Your task to perform on an android device: Go to location settings Image 0: 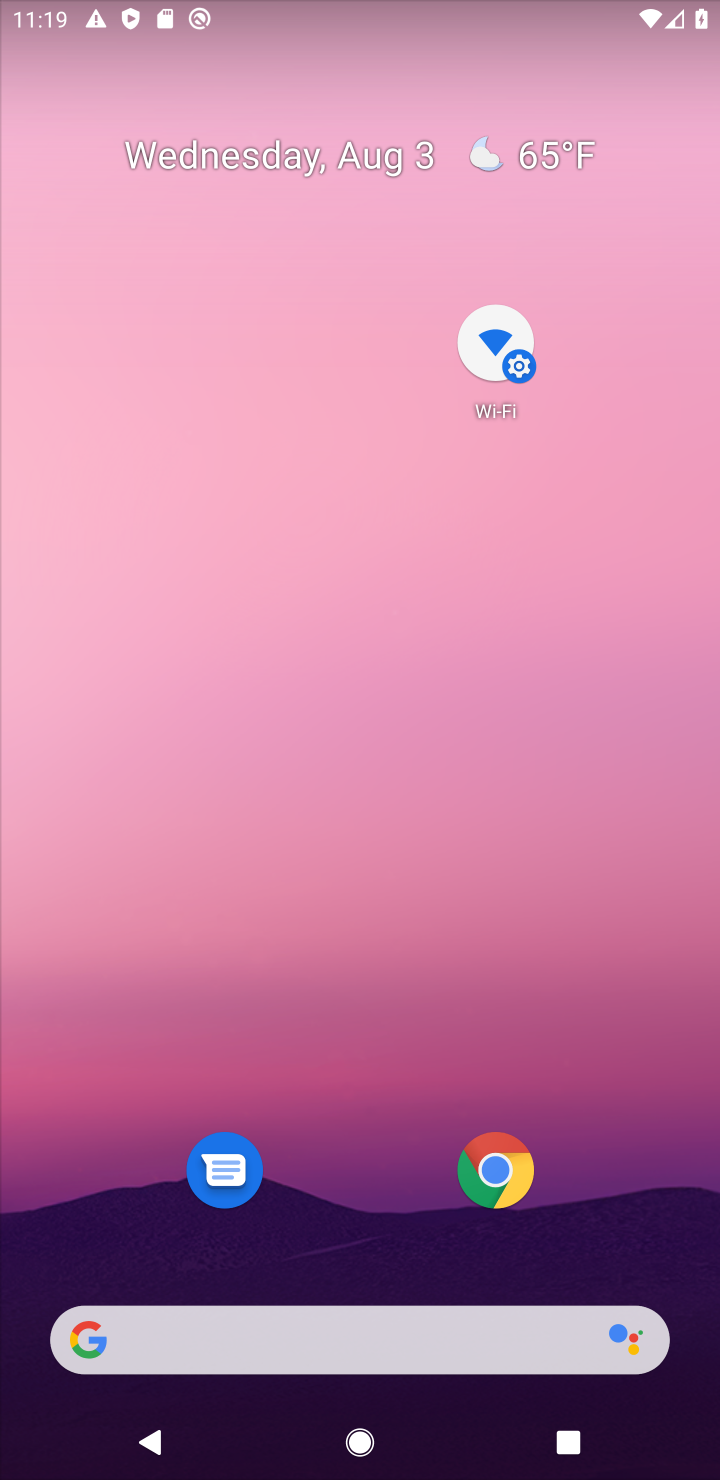
Step 0: click (483, 638)
Your task to perform on an android device: Go to location settings Image 1: 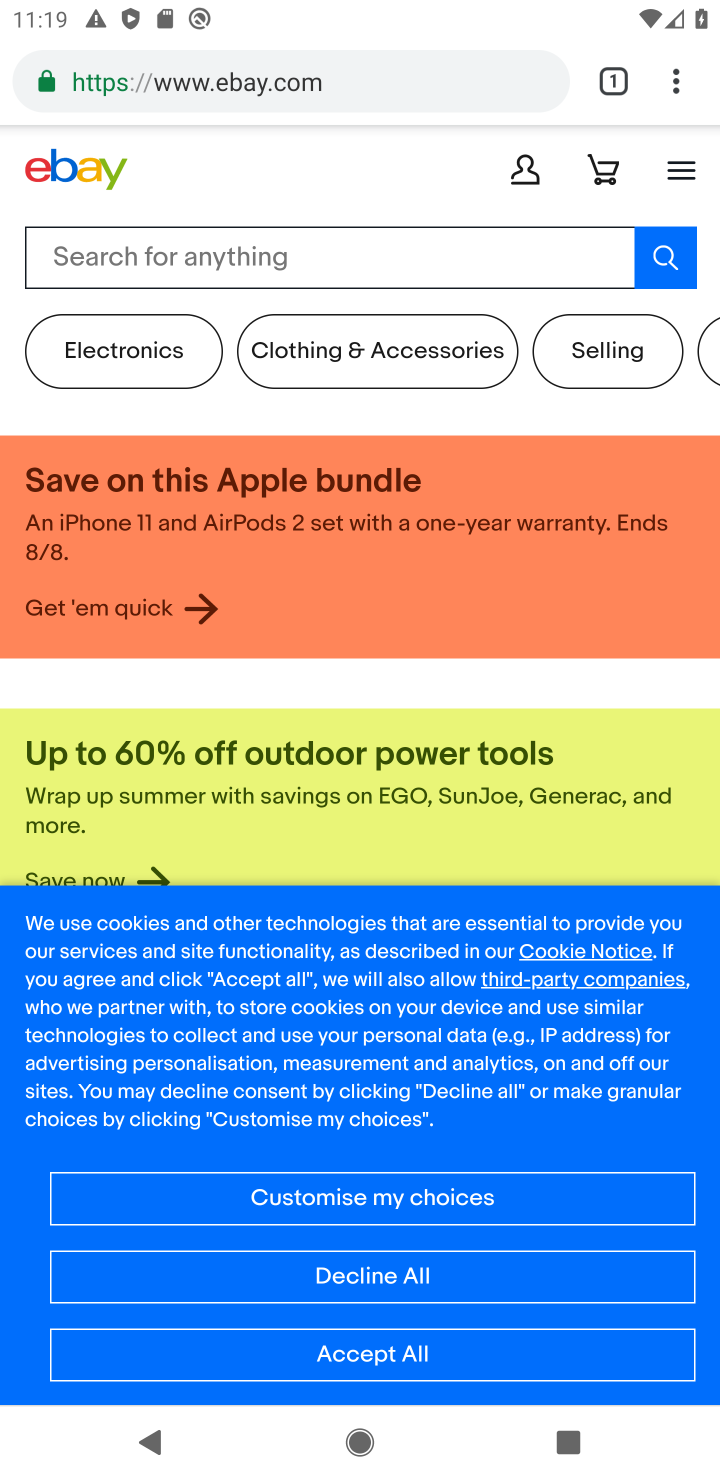
Step 1: drag from (674, 88) to (32, 405)
Your task to perform on an android device: Go to location settings Image 2: 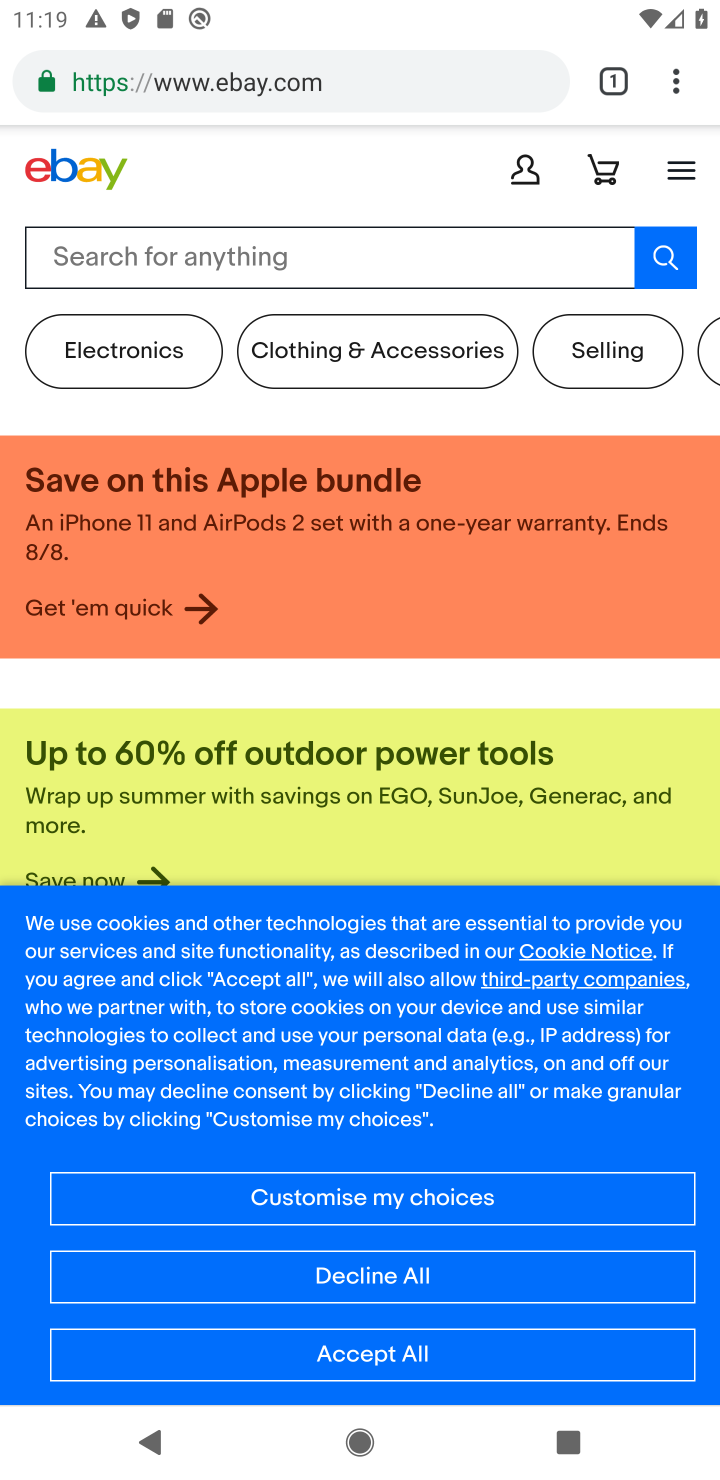
Step 2: press home button
Your task to perform on an android device: Go to location settings Image 3: 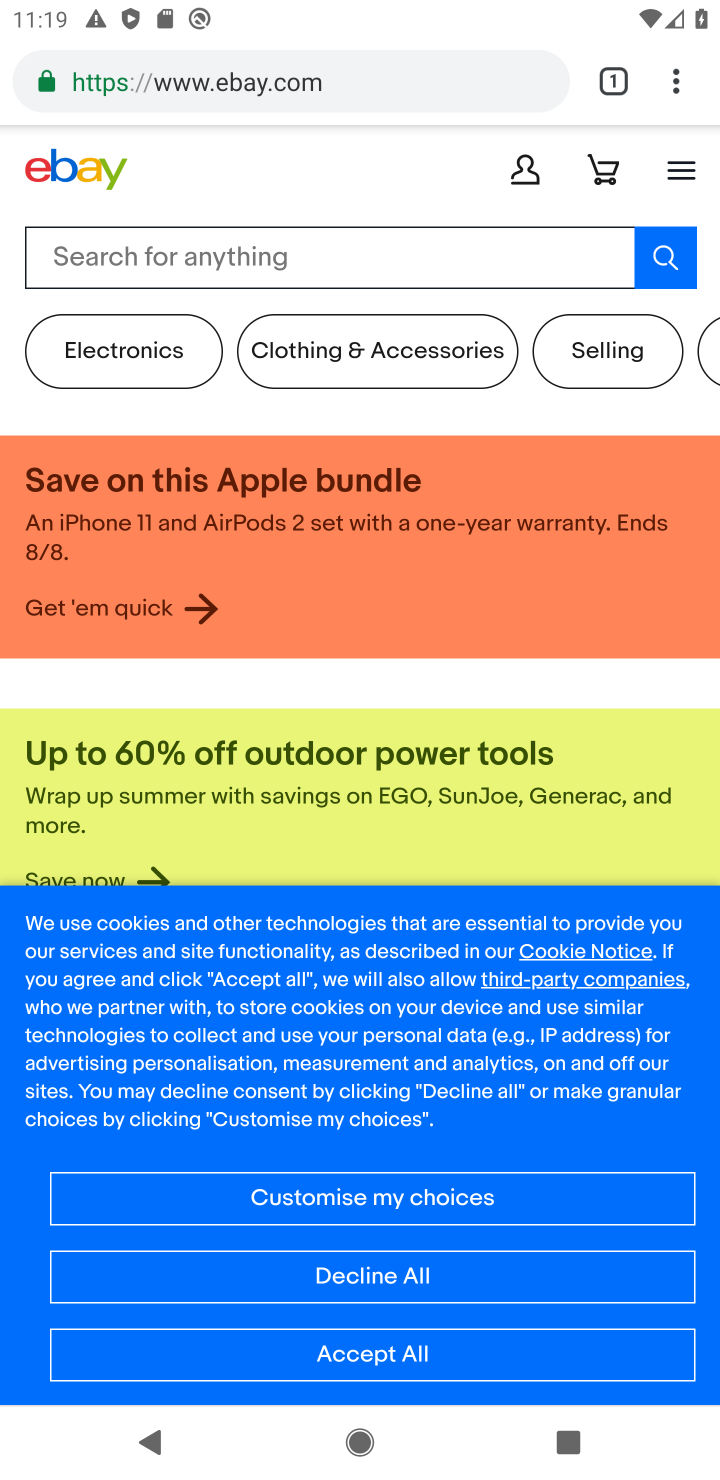
Step 3: drag from (474, 1026) to (542, 490)
Your task to perform on an android device: Go to location settings Image 4: 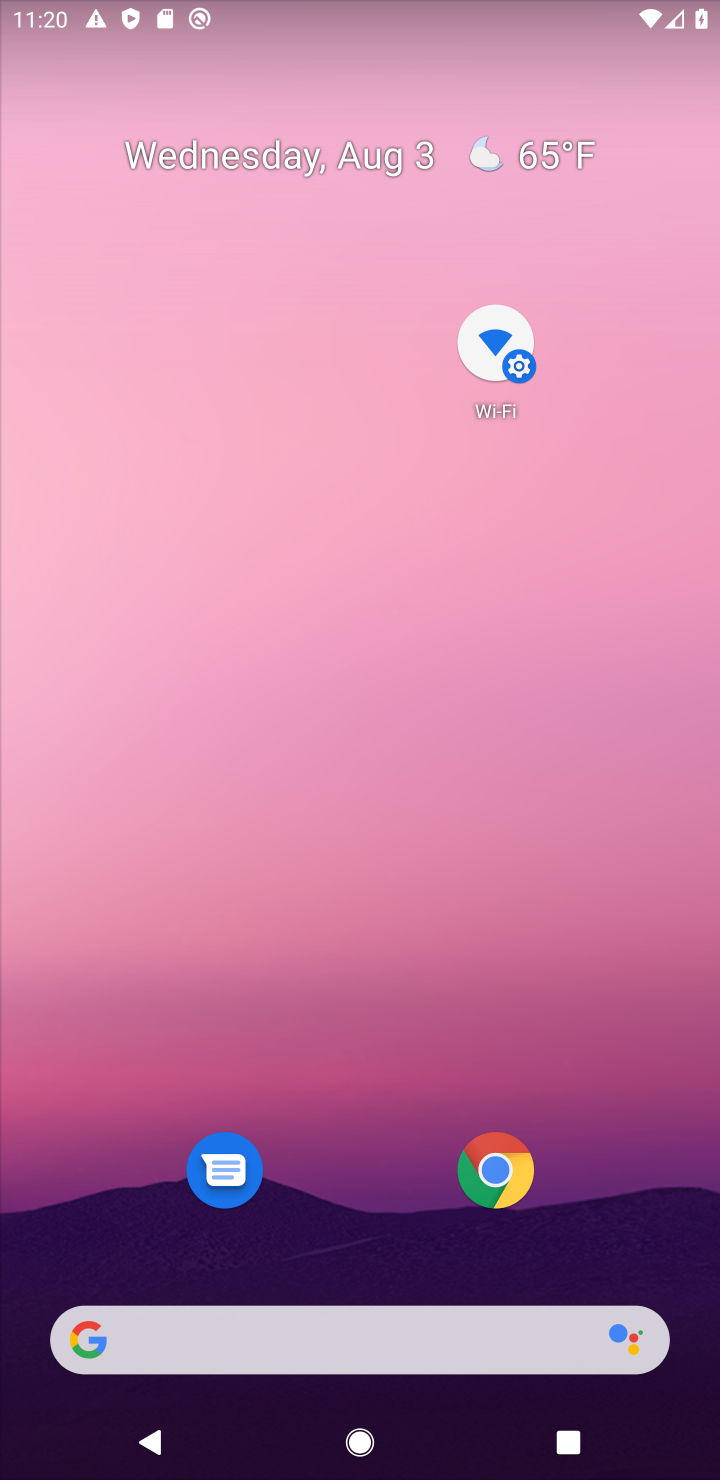
Step 4: drag from (419, 687) to (116, 22)
Your task to perform on an android device: Go to location settings Image 5: 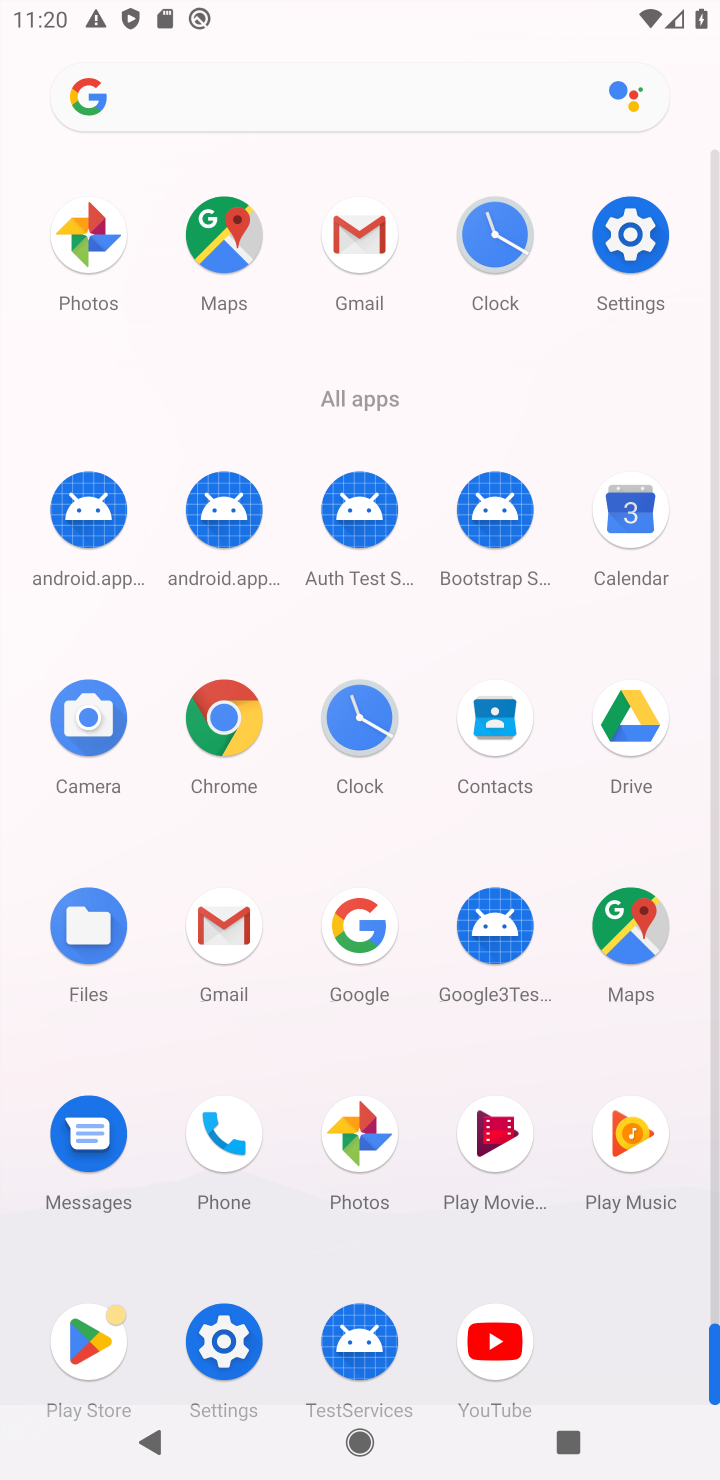
Step 5: click (610, 230)
Your task to perform on an android device: Go to location settings Image 6: 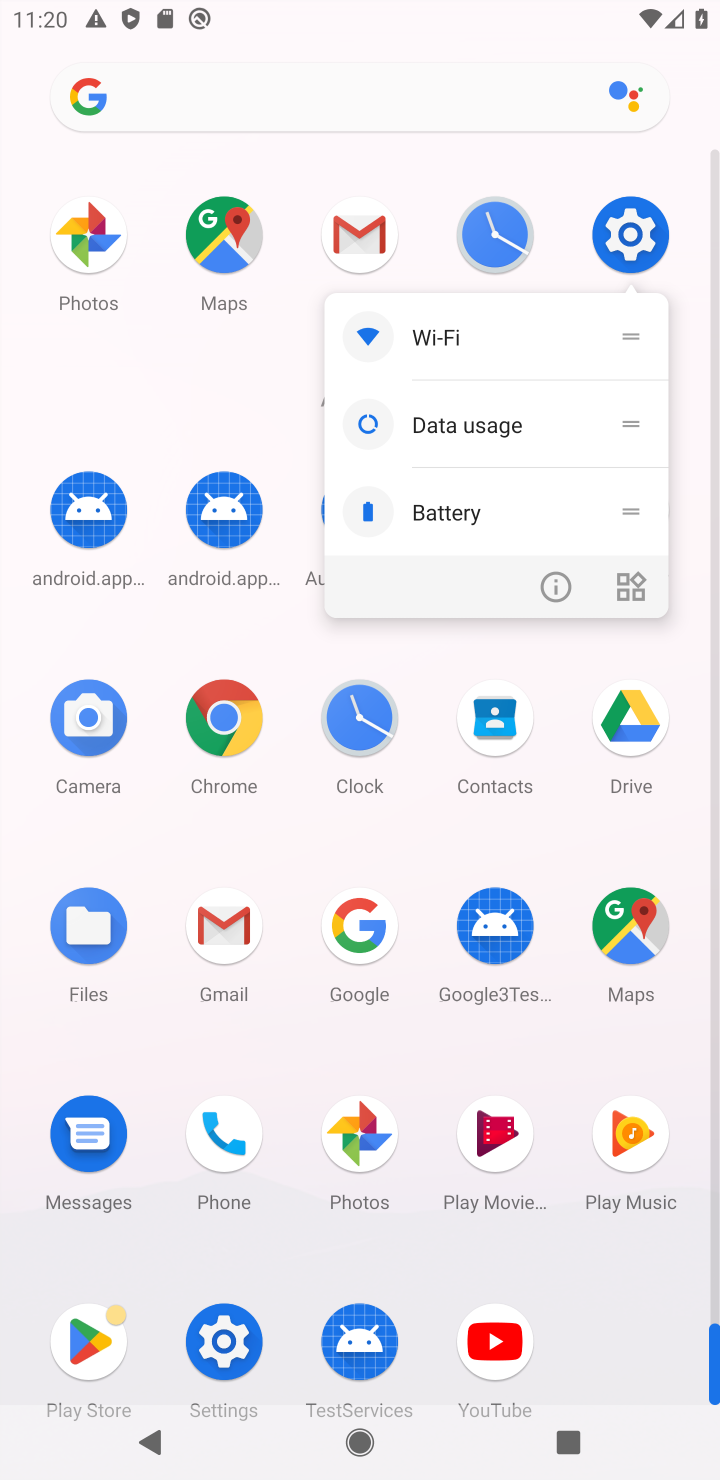
Step 6: click (555, 579)
Your task to perform on an android device: Go to location settings Image 7: 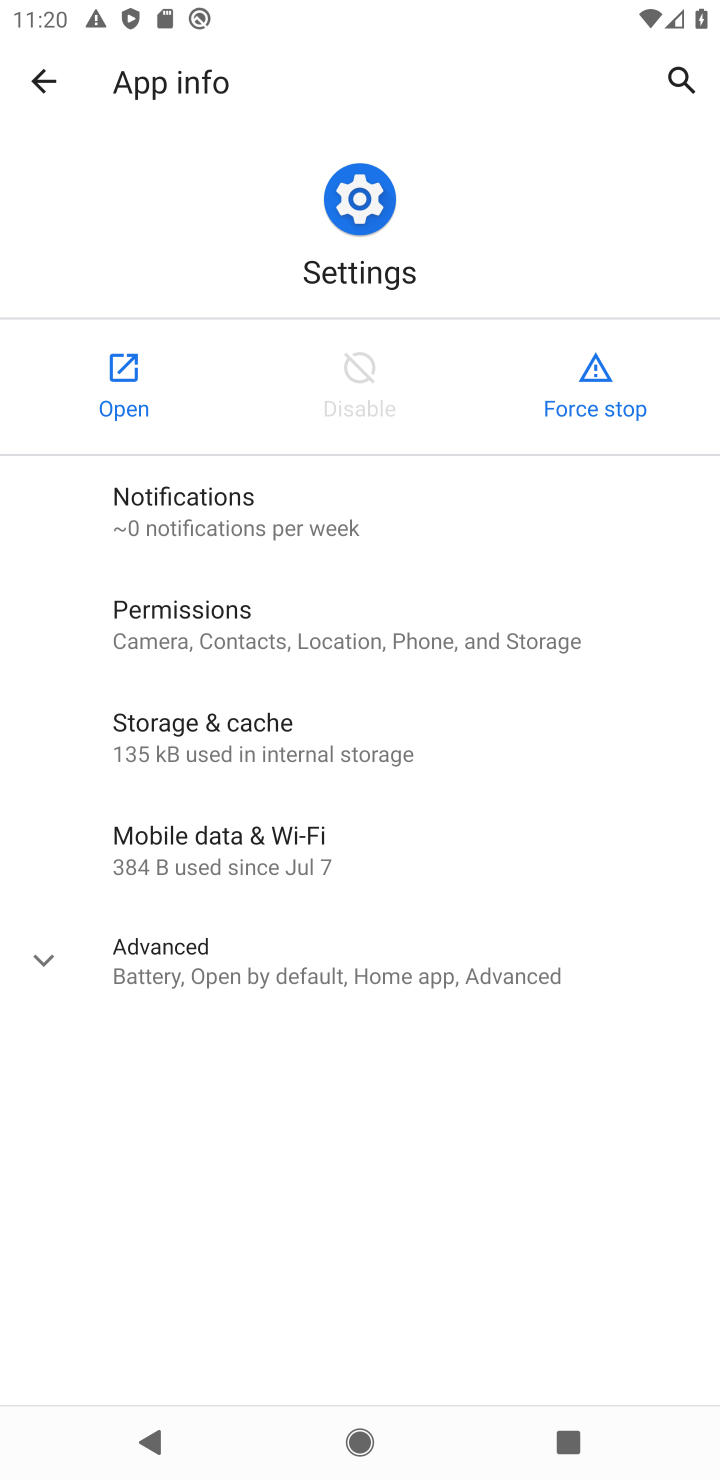
Step 7: click (114, 388)
Your task to perform on an android device: Go to location settings Image 8: 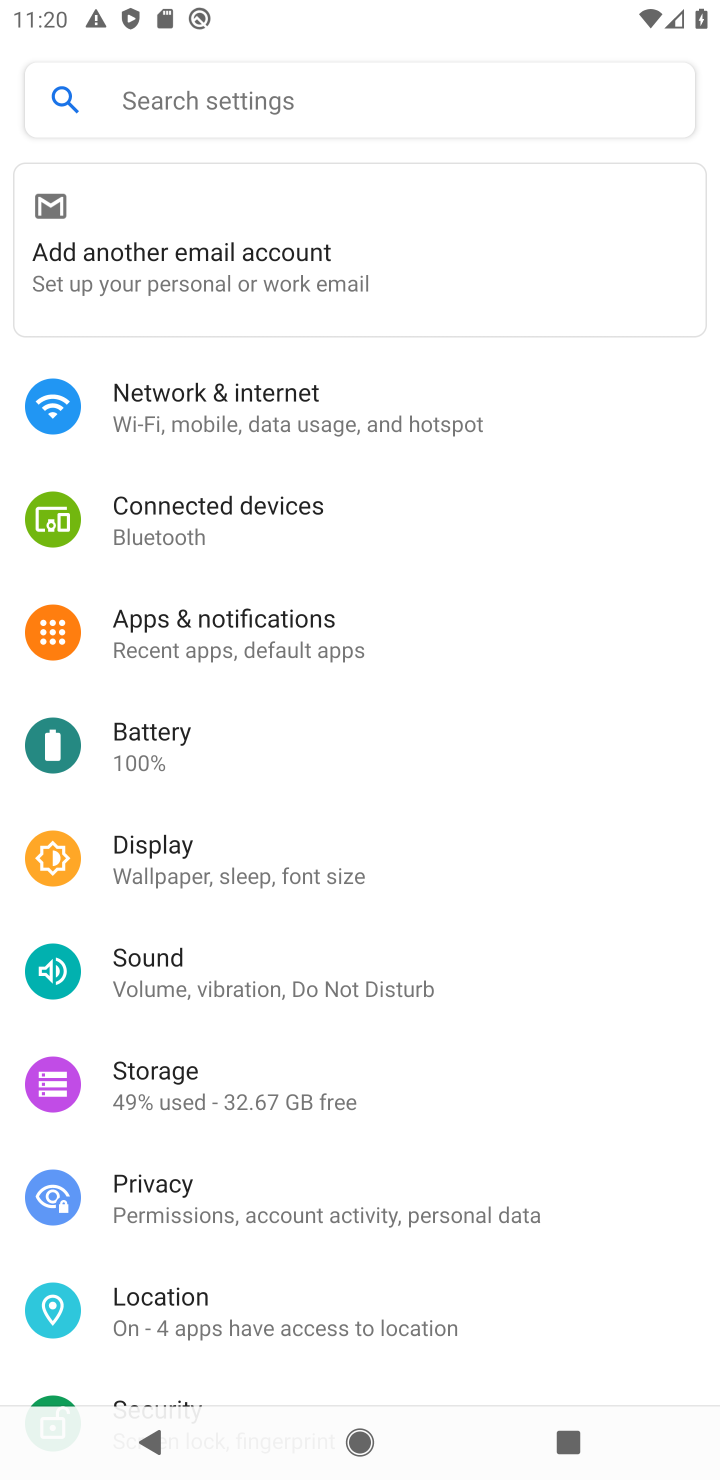
Step 8: drag from (243, 1061) to (322, 598)
Your task to perform on an android device: Go to location settings Image 9: 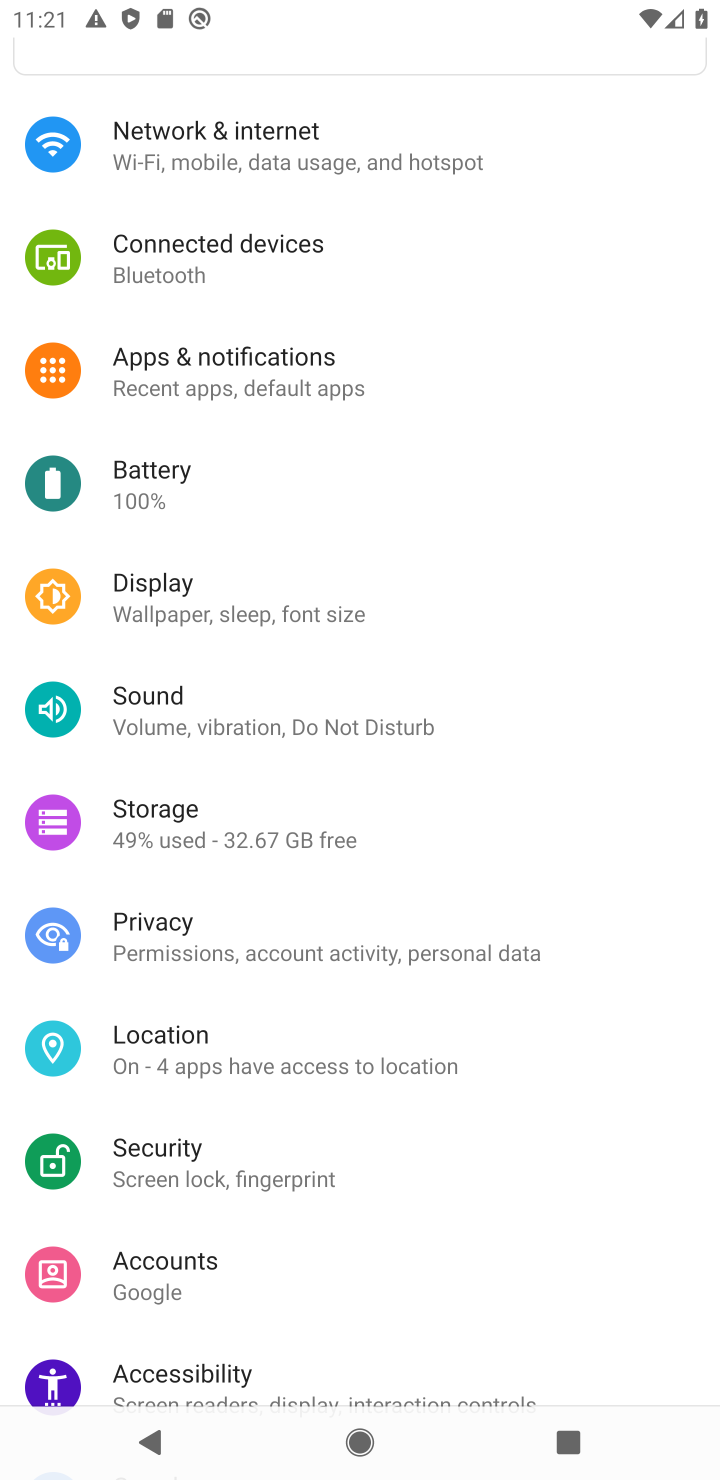
Step 9: click (240, 1042)
Your task to perform on an android device: Go to location settings Image 10: 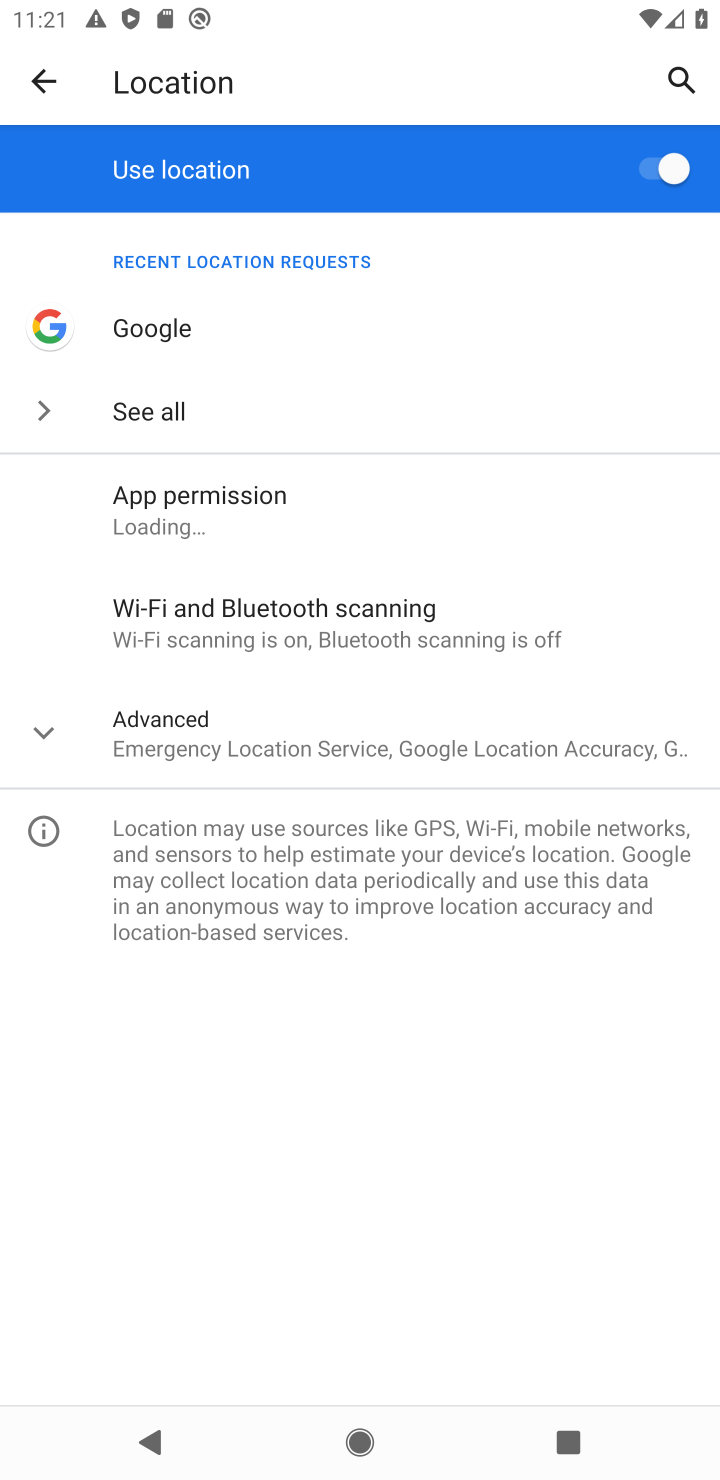
Step 10: click (248, 744)
Your task to perform on an android device: Go to location settings Image 11: 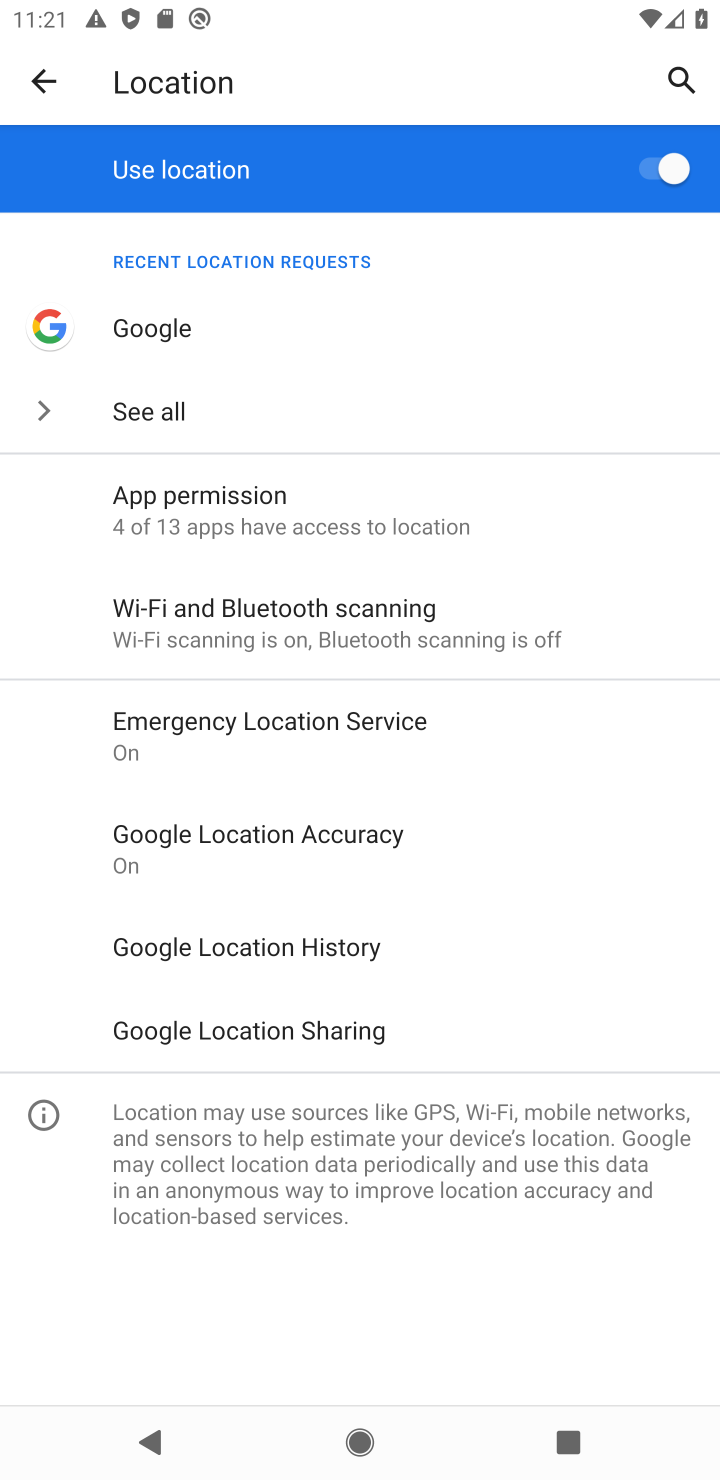
Step 11: task complete